Your task to perform on an android device: turn off data saver in the chrome app Image 0: 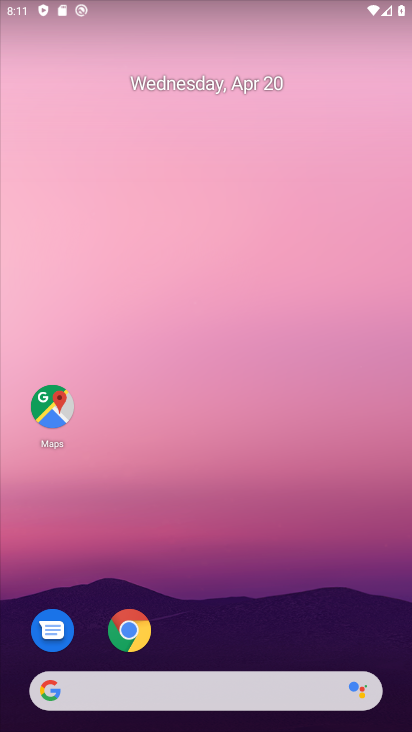
Step 0: click (131, 635)
Your task to perform on an android device: turn off data saver in the chrome app Image 1: 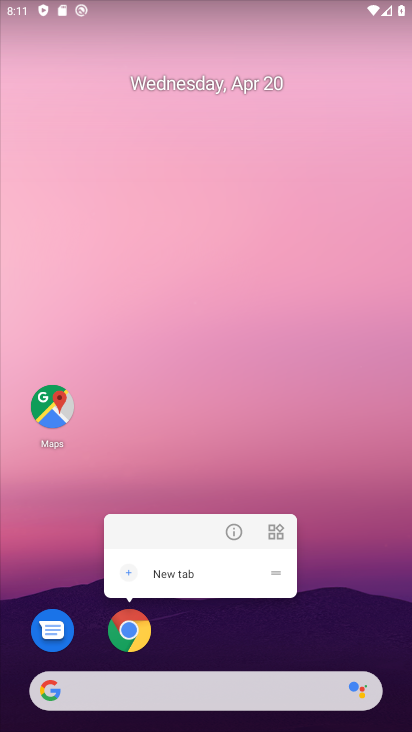
Step 1: click (139, 620)
Your task to perform on an android device: turn off data saver in the chrome app Image 2: 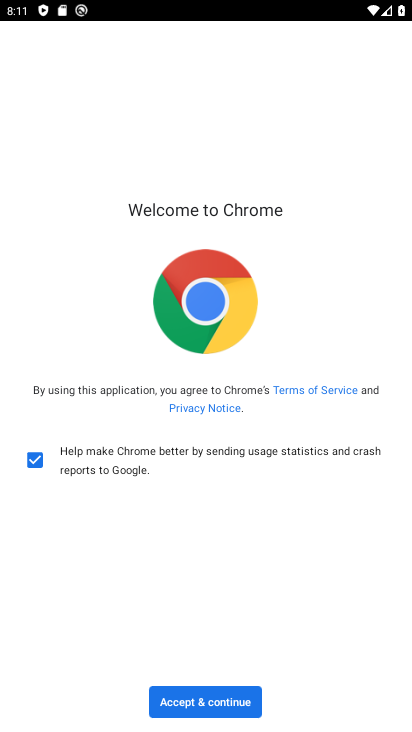
Step 2: click (182, 692)
Your task to perform on an android device: turn off data saver in the chrome app Image 3: 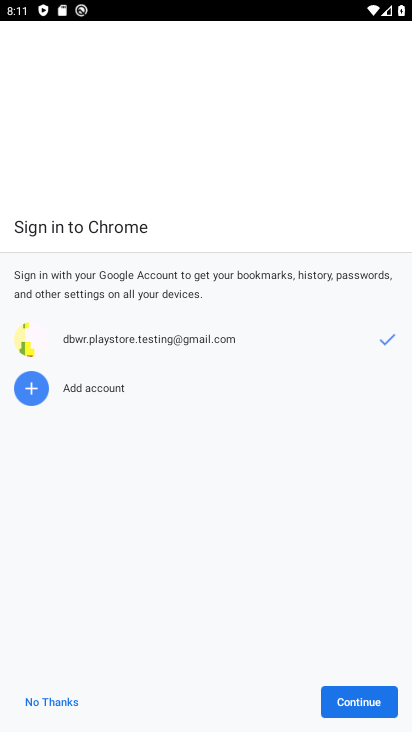
Step 3: click (367, 702)
Your task to perform on an android device: turn off data saver in the chrome app Image 4: 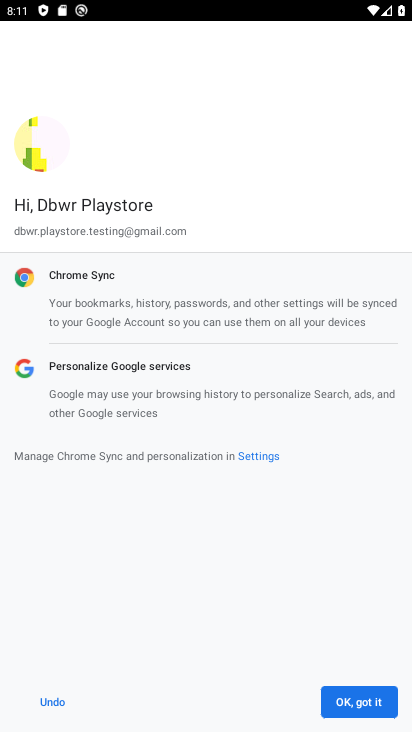
Step 4: click (367, 702)
Your task to perform on an android device: turn off data saver in the chrome app Image 5: 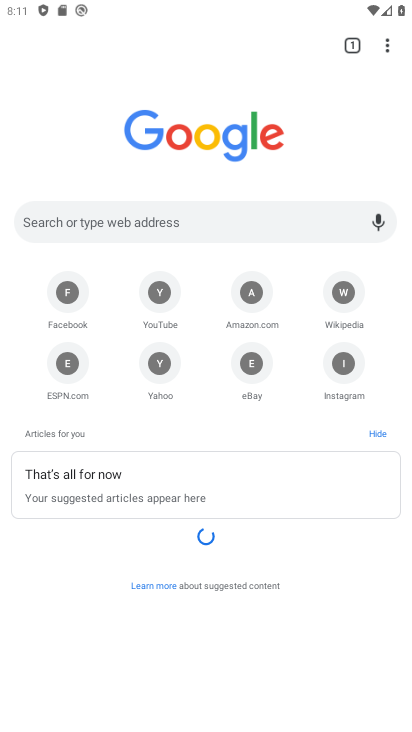
Step 5: click (383, 45)
Your task to perform on an android device: turn off data saver in the chrome app Image 6: 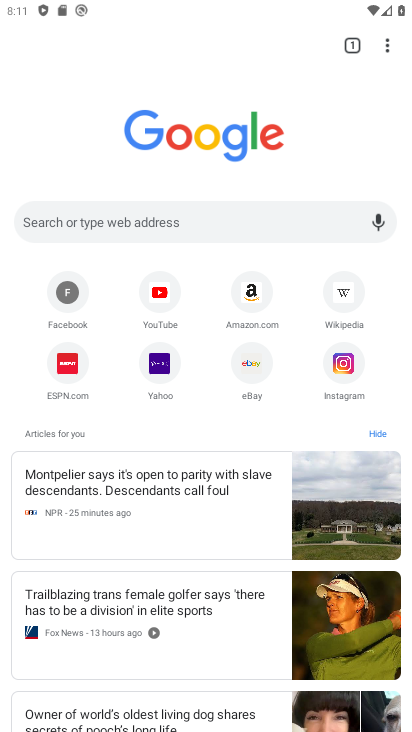
Step 6: click (386, 45)
Your task to perform on an android device: turn off data saver in the chrome app Image 7: 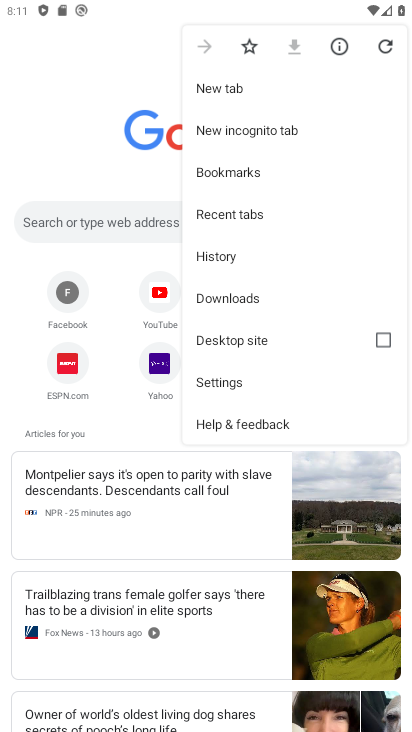
Step 7: click (220, 382)
Your task to perform on an android device: turn off data saver in the chrome app Image 8: 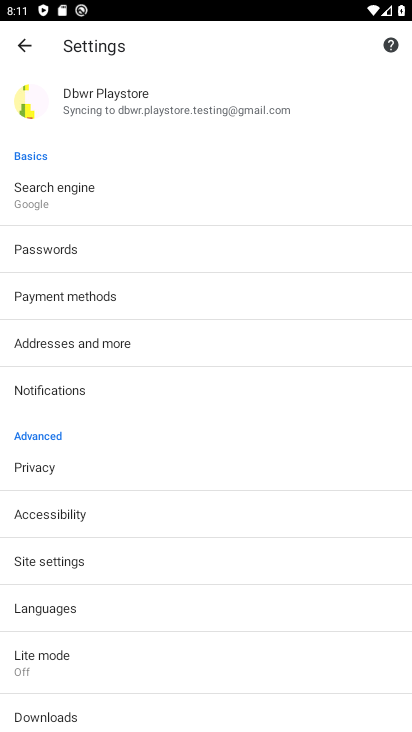
Step 8: click (59, 662)
Your task to perform on an android device: turn off data saver in the chrome app Image 9: 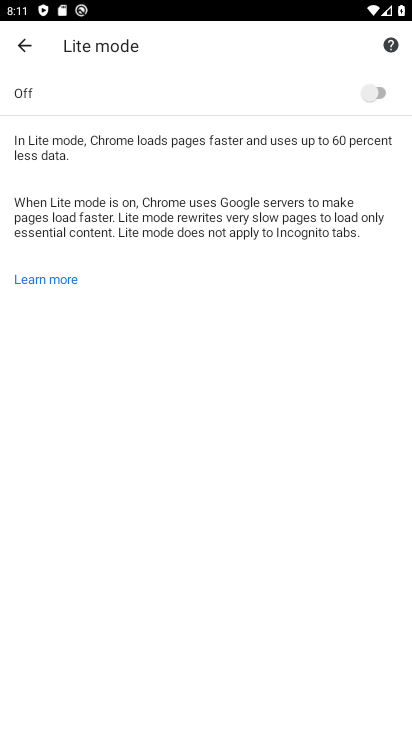
Step 9: task complete